Your task to perform on an android device: Go to Reddit.com Image 0: 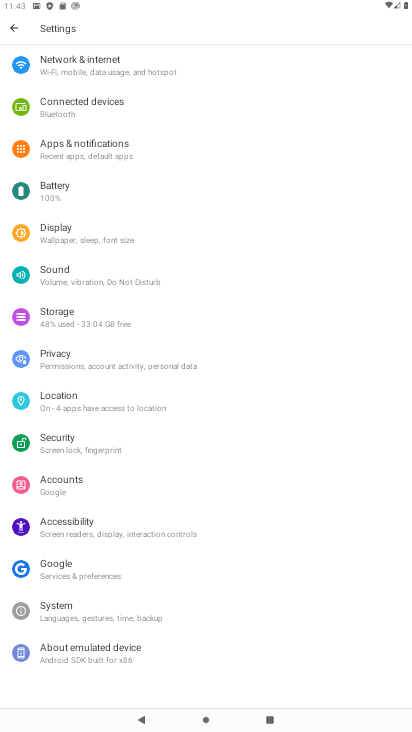
Step 0: press home button
Your task to perform on an android device: Go to Reddit.com Image 1: 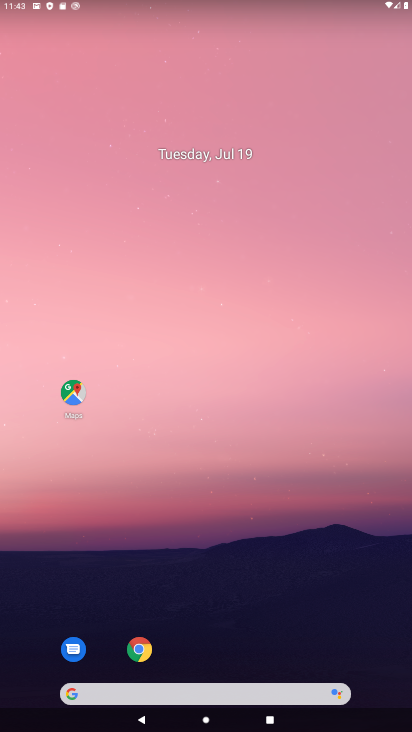
Step 1: click (149, 649)
Your task to perform on an android device: Go to Reddit.com Image 2: 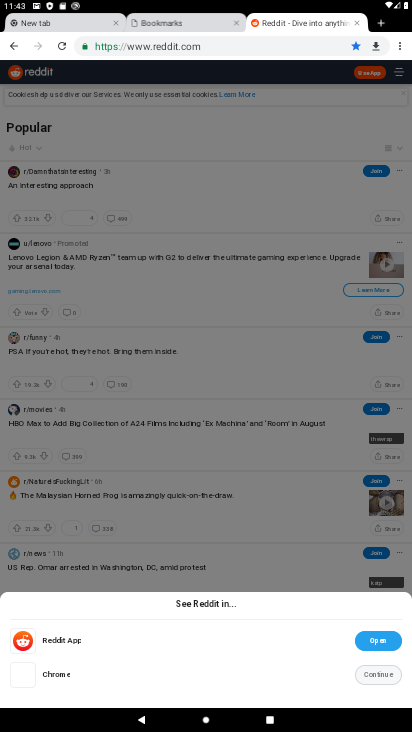
Step 2: drag from (189, 249) to (194, 386)
Your task to perform on an android device: Go to Reddit.com Image 3: 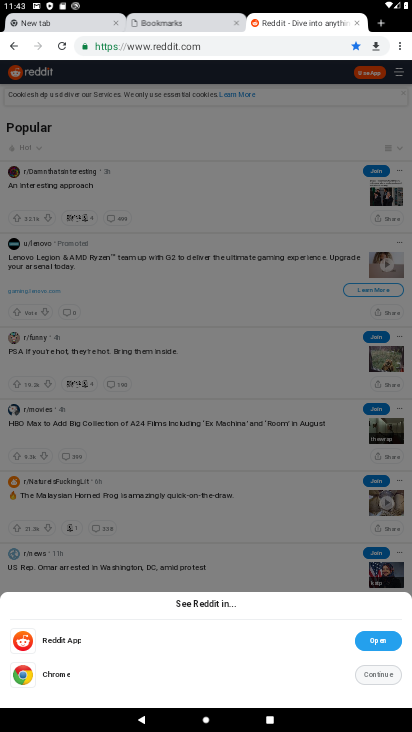
Step 3: click (376, 669)
Your task to perform on an android device: Go to Reddit.com Image 4: 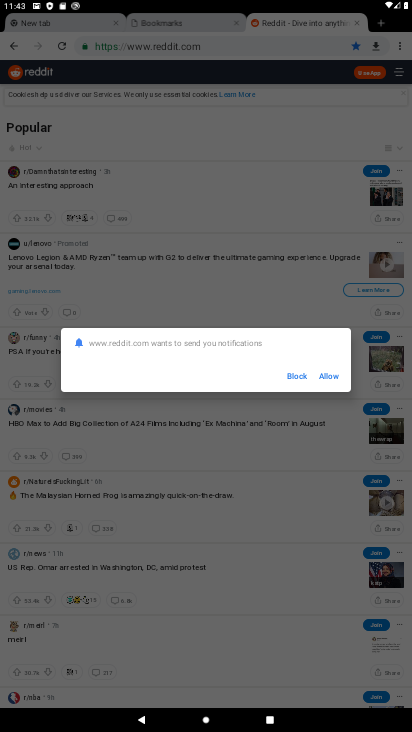
Step 4: click (323, 372)
Your task to perform on an android device: Go to Reddit.com Image 5: 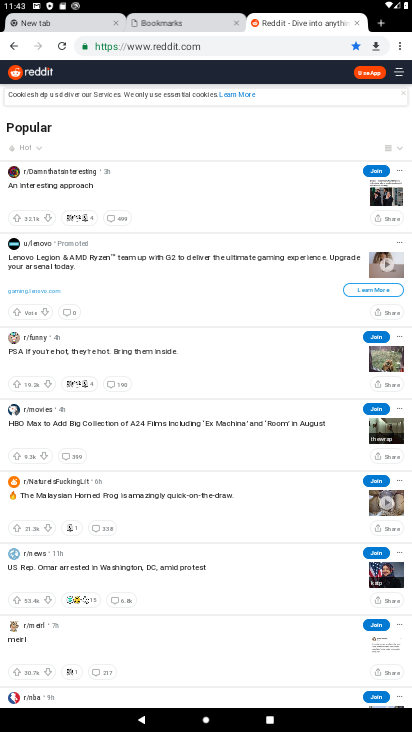
Step 5: task complete